Your task to perform on an android device: turn on showing notifications on the lock screen Image 0: 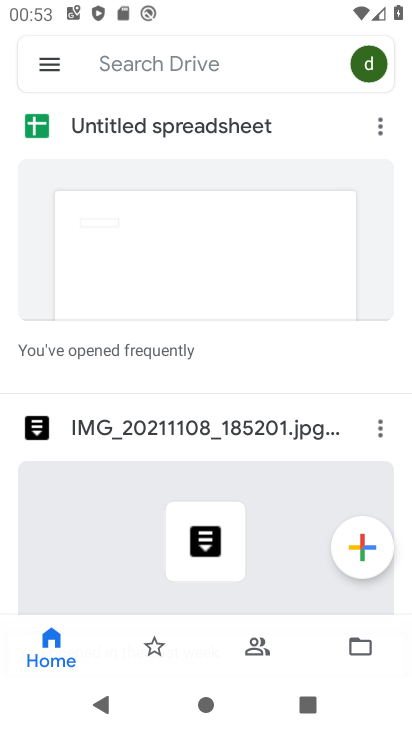
Step 0: press home button
Your task to perform on an android device: turn on showing notifications on the lock screen Image 1: 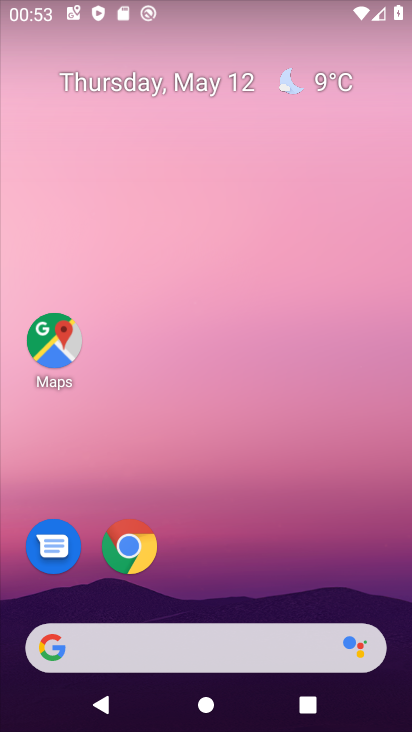
Step 1: drag from (150, 593) to (186, 243)
Your task to perform on an android device: turn on showing notifications on the lock screen Image 2: 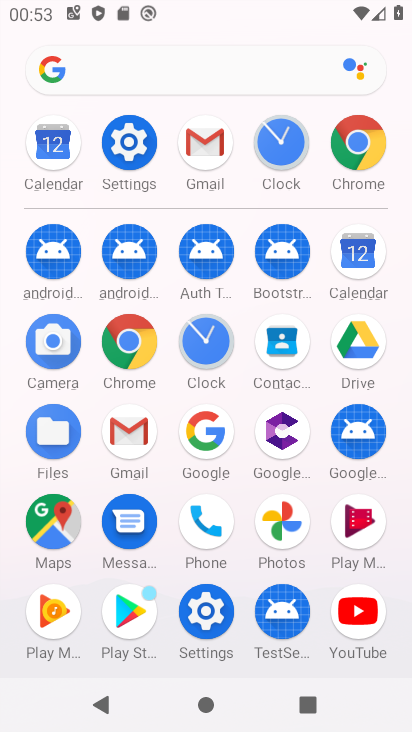
Step 2: click (127, 148)
Your task to perform on an android device: turn on showing notifications on the lock screen Image 3: 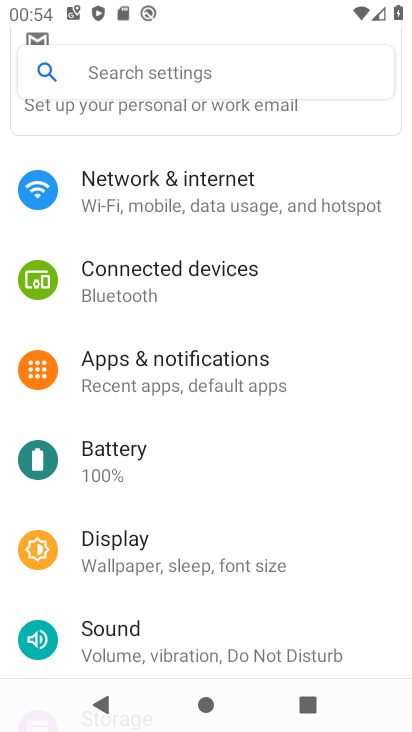
Step 3: click (192, 372)
Your task to perform on an android device: turn on showing notifications on the lock screen Image 4: 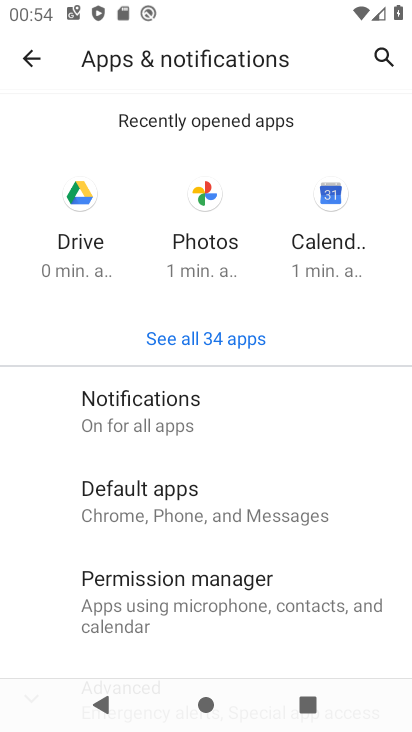
Step 4: click (149, 412)
Your task to perform on an android device: turn on showing notifications on the lock screen Image 5: 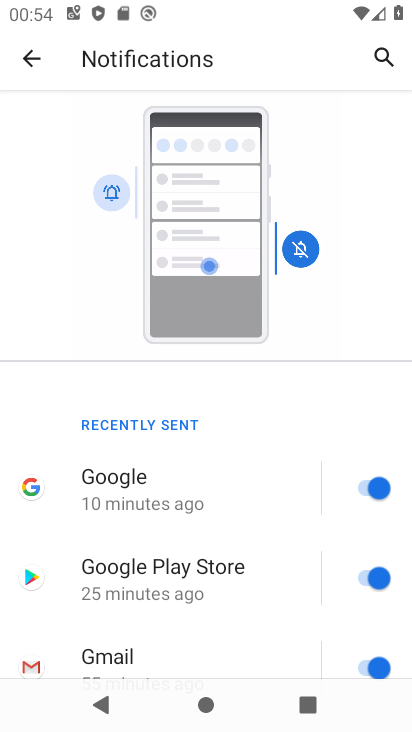
Step 5: drag from (142, 573) to (141, 243)
Your task to perform on an android device: turn on showing notifications on the lock screen Image 6: 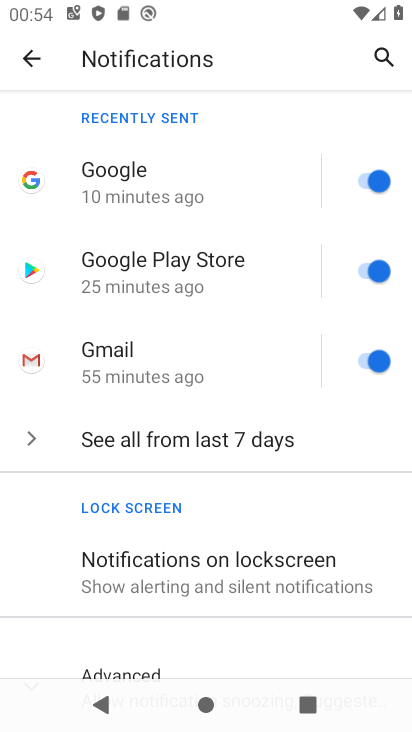
Step 6: drag from (193, 580) to (185, 298)
Your task to perform on an android device: turn on showing notifications on the lock screen Image 7: 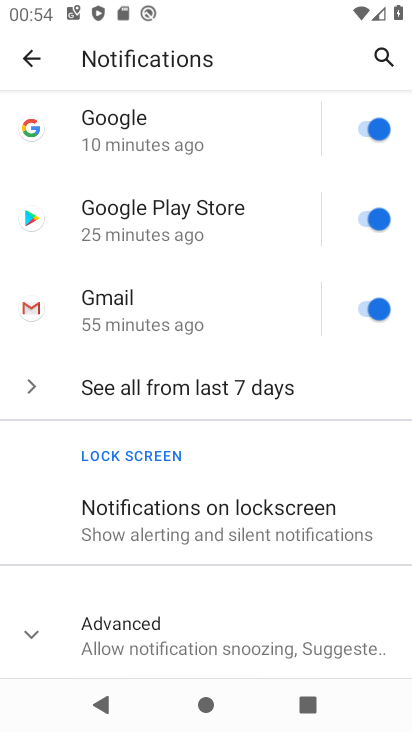
Step 7: click (178, 516)
Your task to perform on an android device: turn on showing notifications on the lock screen Image 8: 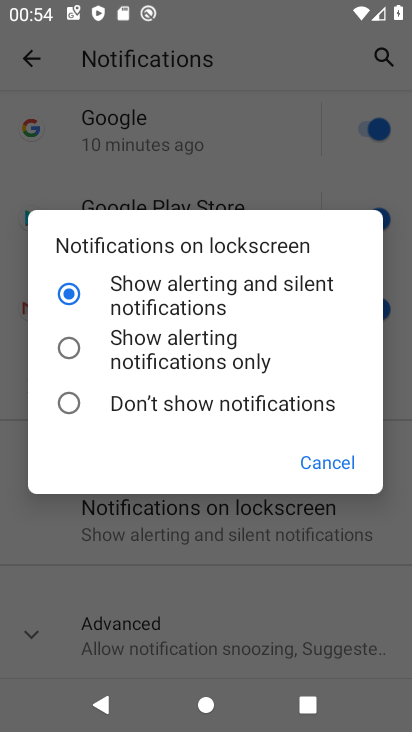
Step 8: task complete